Your task to perform on an android device: change keyboard looks Image 0: 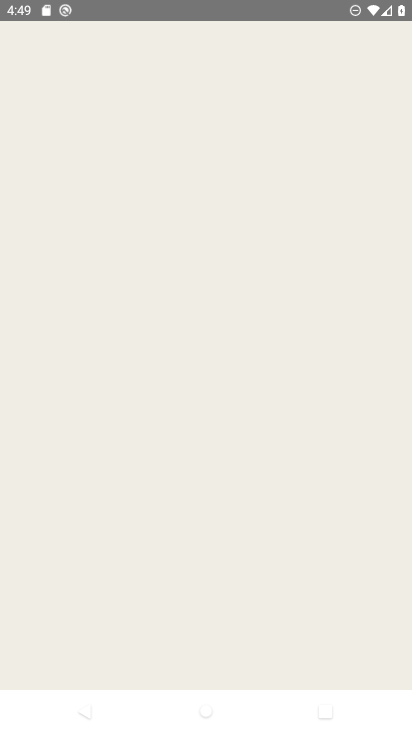
Step 0: drag from (236, 643) to (247, 269)
Your task to perform on an android device: change keyboard looks Image 1: 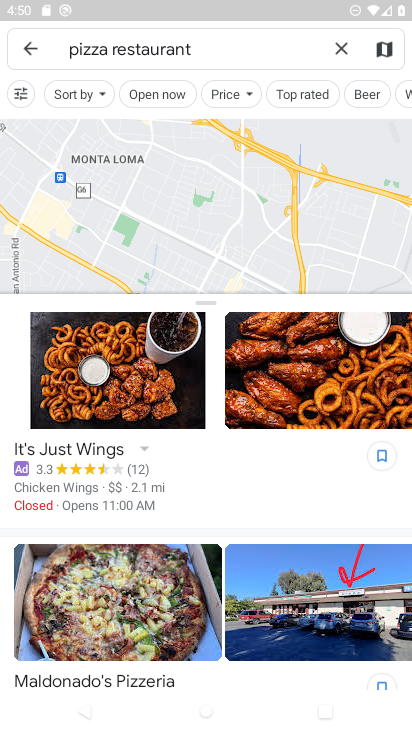
Step 1: press home button
Your task to perform on an android device: change keyboard looks Image 2: 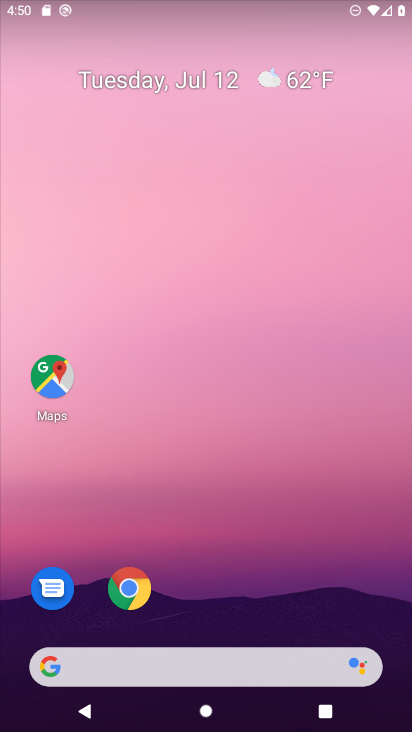
Step 2: drag from (248, 546) to (283, 120)
Your task to perform on an android device: change keyboard looks Image 3: 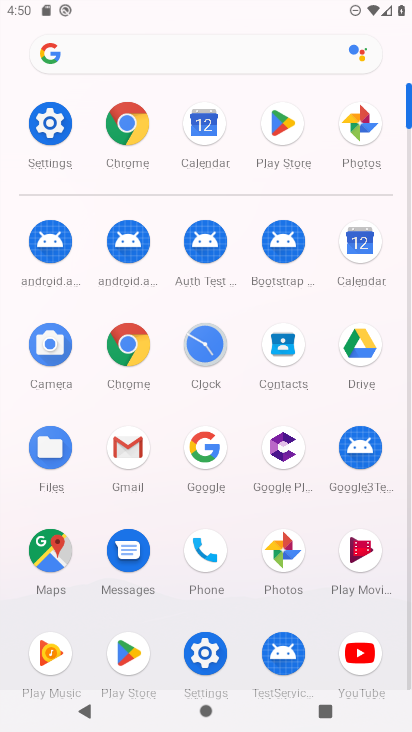
Step 3: click (213, 649)
Your task to perform on an android device: change keyboard looks Image 4: 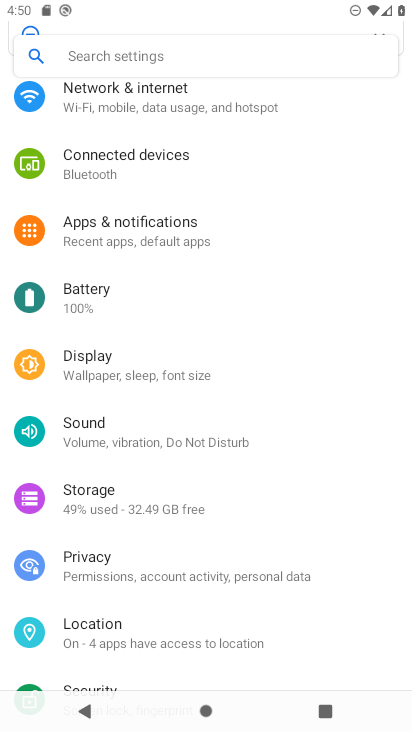
Step 4: drag from (142, 646) to (161, 180)
Your task to perform on an android device: change keyboard looks Image 5: 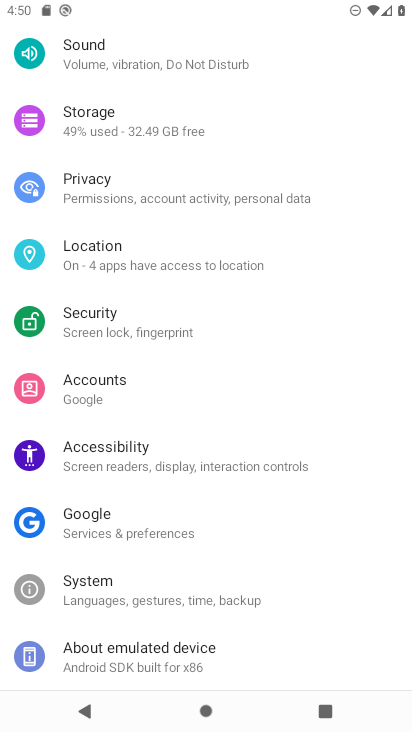
Step 5: click (95, 588)
Your task to perform on an android device: change keyboard looks Image 6: 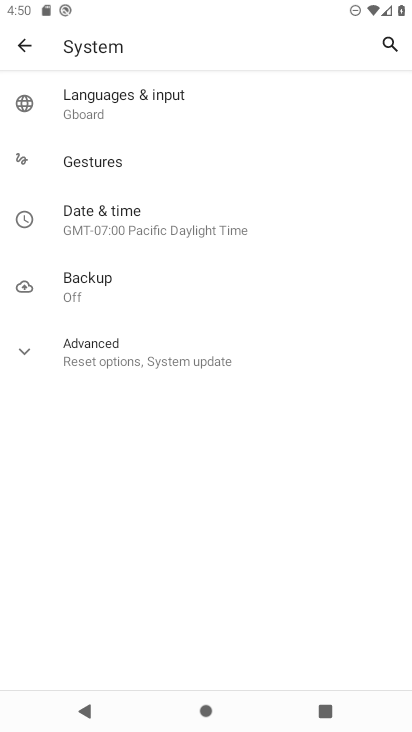
Step 6: click (143, 128)
Your task to perform on an android device: change keyboard looks Image 7: 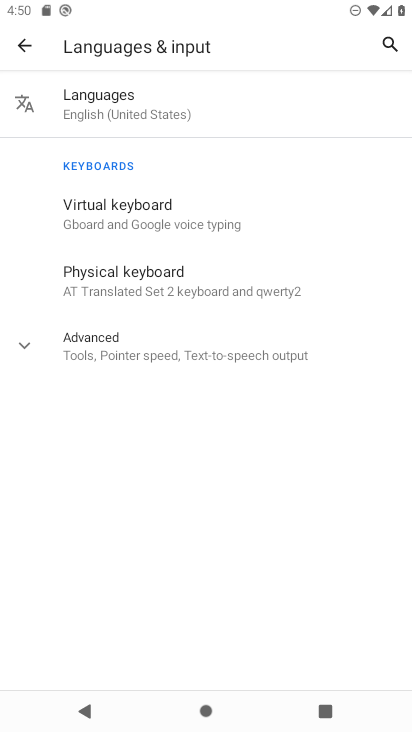
Step 7: click (153, 218)
Your task to perform on an android device: change keyboard looks Image 8: 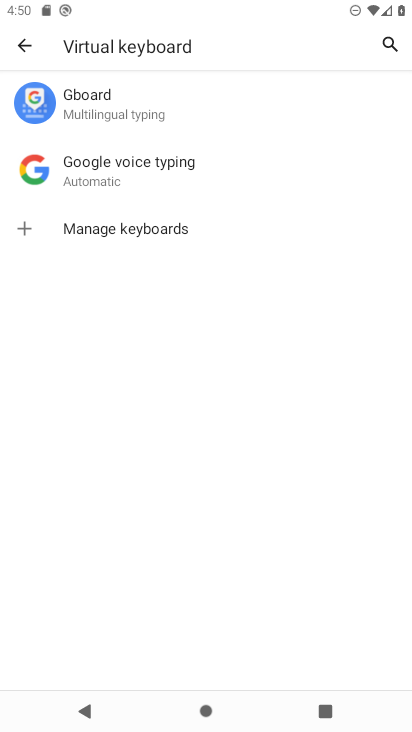
Step 8: click (140, 98)
Your task to perform on an android device: change keyboard looks Image 9: 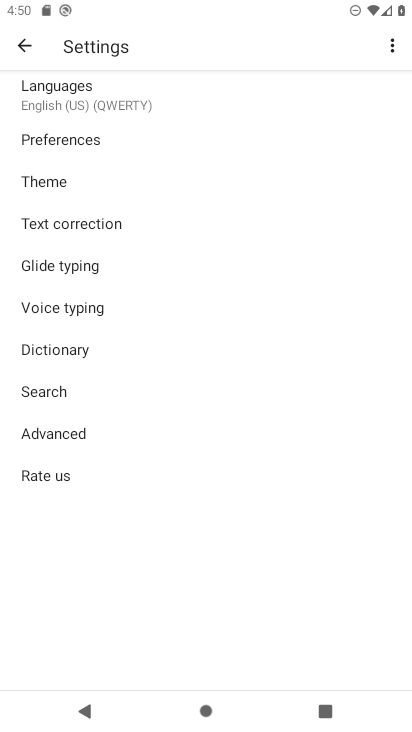
Step 9: click (47, 187)
Your task to perform on an android device: change keyboard looks Image 10: 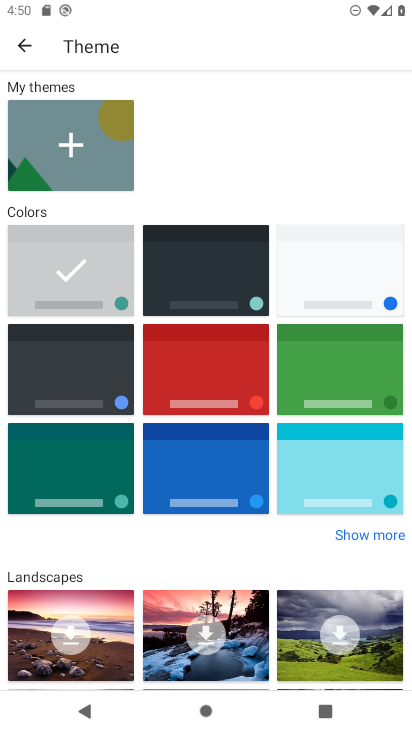
Step 10: click (216, 393)
Your task to perform on an android device: change keyboard looks Image 11: 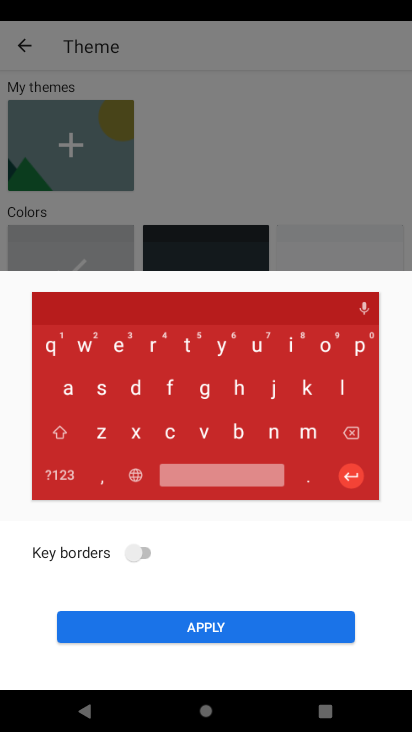
Step 11: click (202, 632)
Your task to perform on an android device: change keyboard looks Image 12: 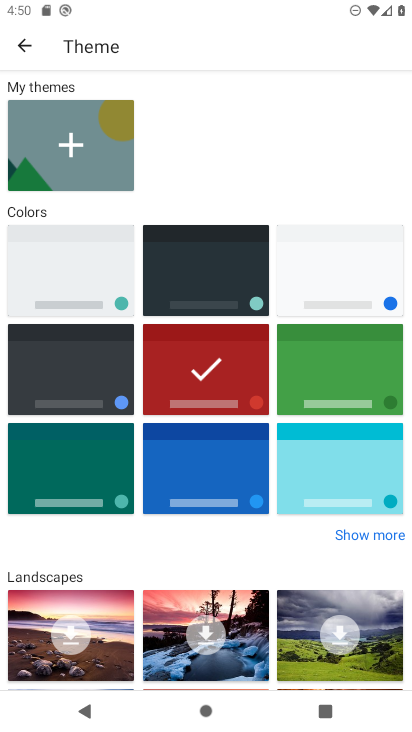
Step 12: task complete